Your task to perform on an android device: stop showing notifications on the lock screen Image 0: 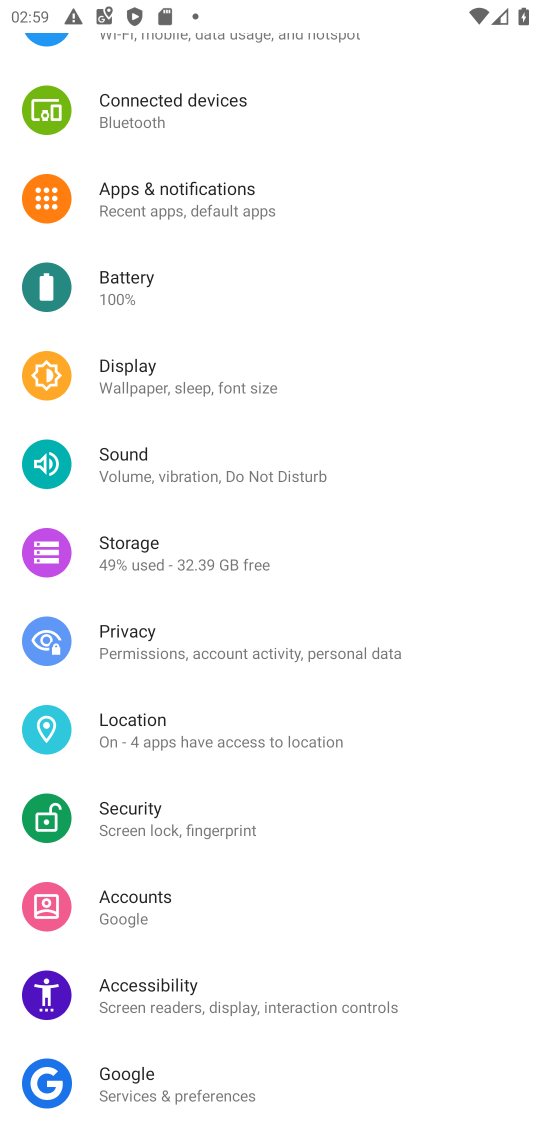
Step 0: click (240, 201)
Your task to perform on an android device: stop showing notifications on the lock screen Image 1: 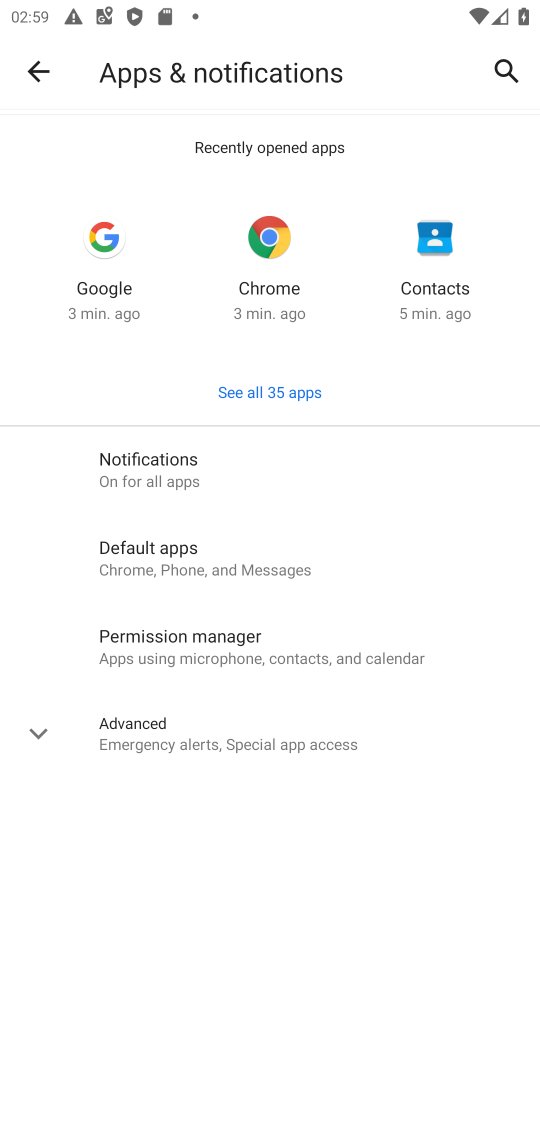
Step 1: click (142, 468)
Your task to perform on an android device: stop showing notifications on the lock screen Image 2: 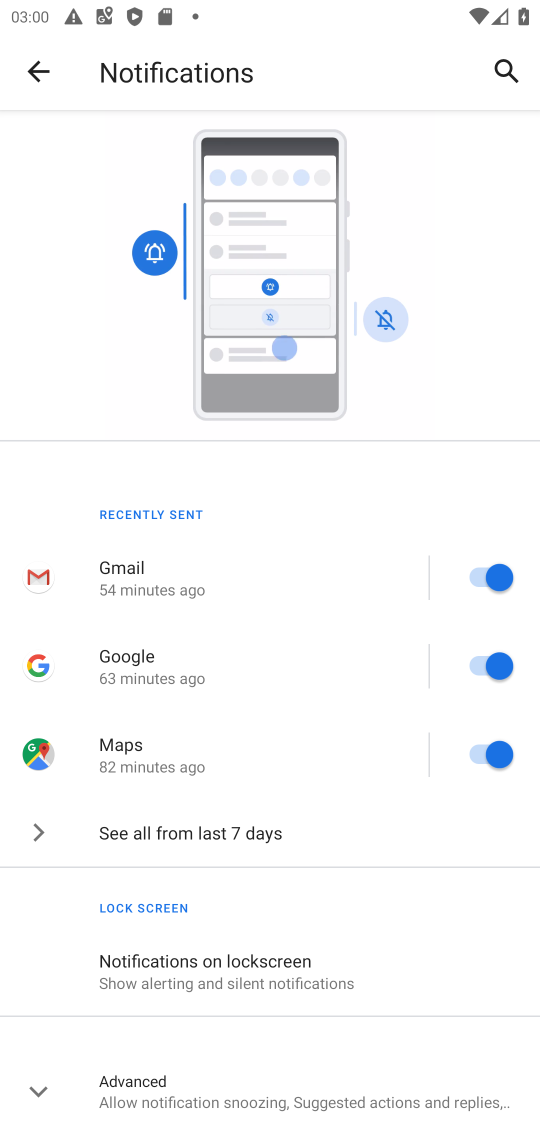
Step 2: click (281, 973)
Your task to perform on an android device: stop showing notifications on the lock screen Image 3: 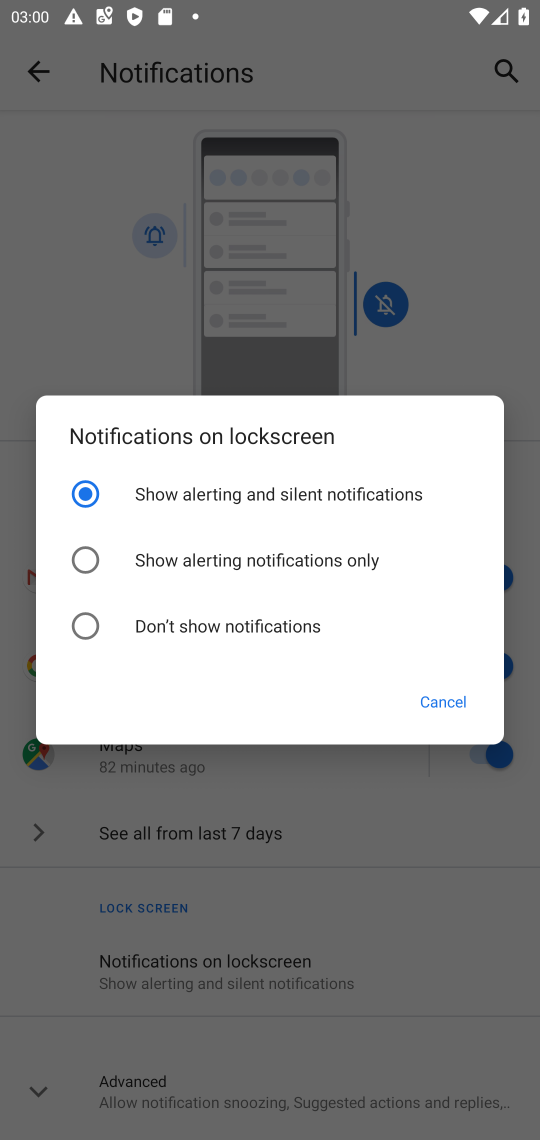
Step 3: click (242, 625)
Your task to perform on an android device: stop showing notifications on the lock screen Image 4: 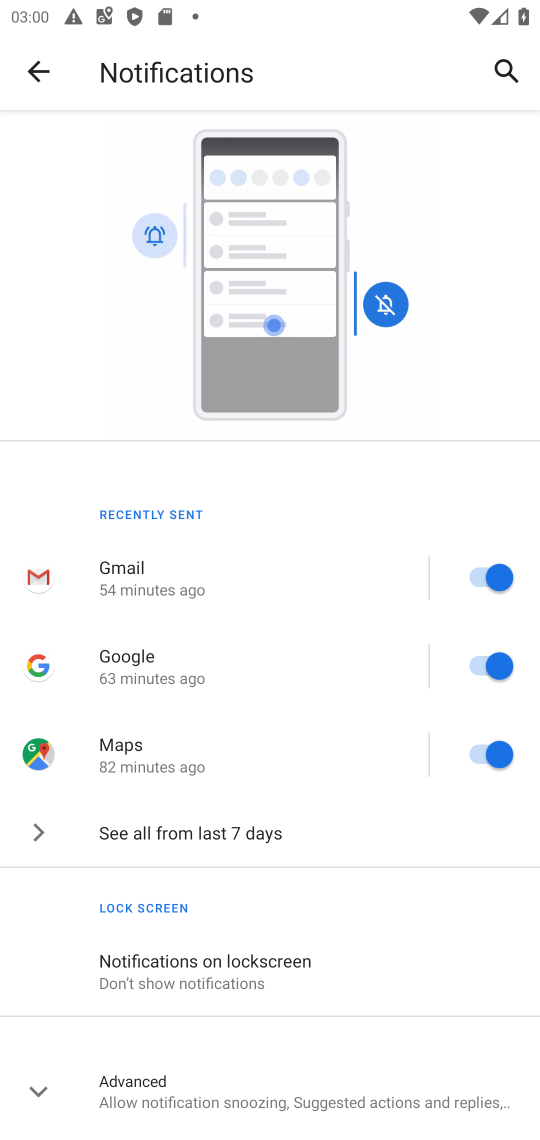
Step 4: task complete